Your task to perform on an android device: manage bookmarks in the chrome app Image 0: 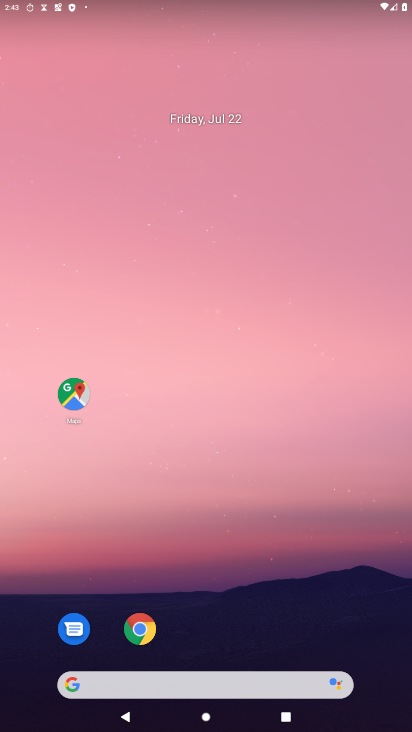
Step 0: drag from (124, 675) to (285, 13)
Your task to perform on an android device: manage bookmarks in the chrome app Image 1: 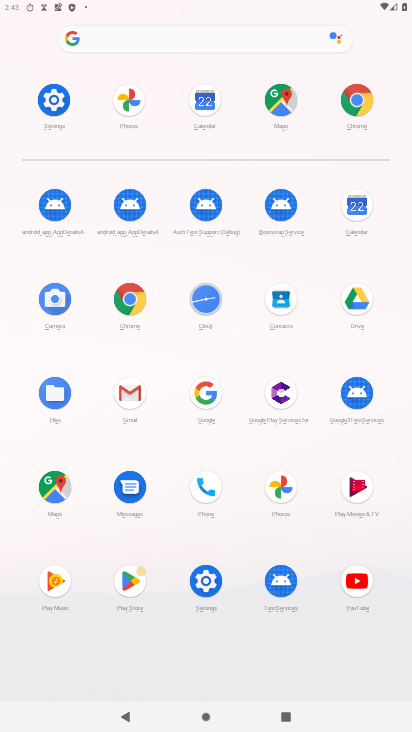
Step 1: click (131, 305)
Your task to perform on an android device: manage bookmarks in the chrome app Image 2: 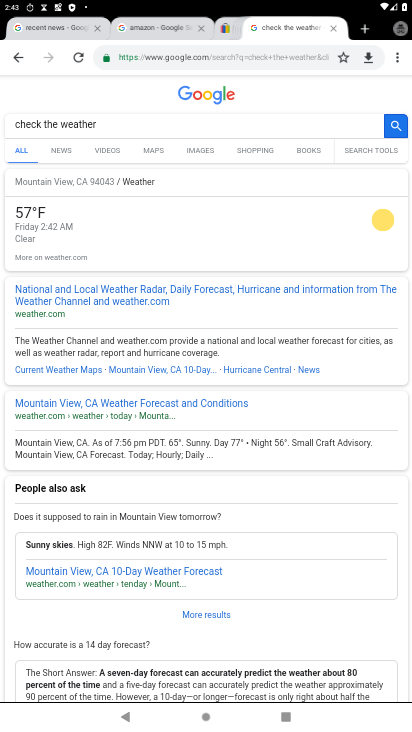
Step 2: task complete